Your task to perform on an android device: turn off notifications settings in the gmail app Image 0: 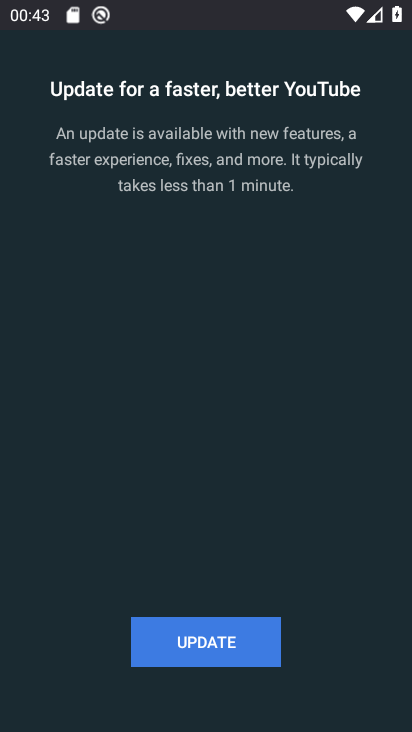
Step 0: press home button
Your task to perform on an android device: turn off notifications settings in the gmail app Image 1: 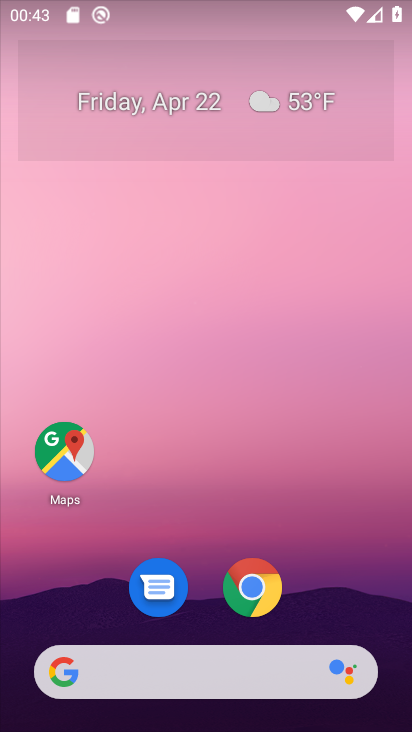
Step 1: drag from (352, 577) to (384, 207)
Your task to perform on an android device: turn off notifications settings in the gmail app Image 2: 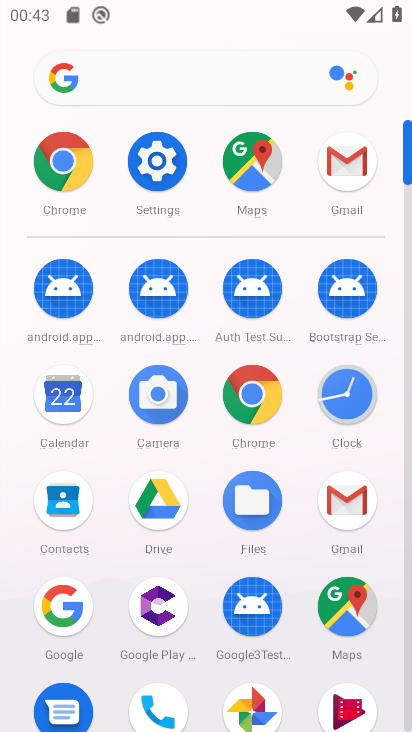
Step 2: click (351, 176)
Your task to perform on an android device: turn off notifications settings in the gmail app Image 3: 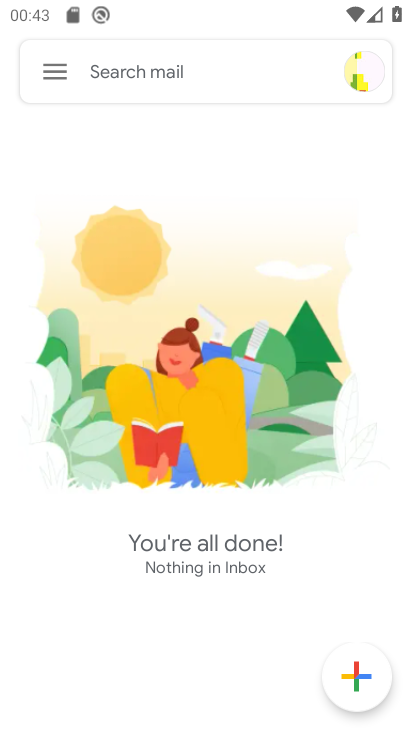
Step 3: click (60, 65)
Your task to perform on an android device: turn off notifications settings in the gmail app Image 4: 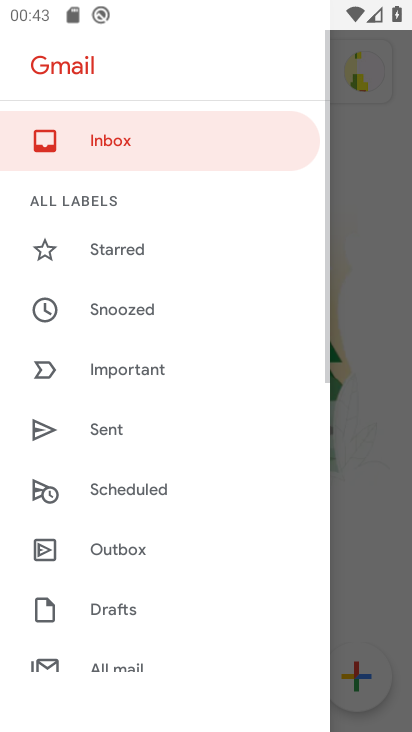
Step 4: drag from (182, 626) to (181, 189)
Your task to perform on an android device: turn off notifications settings in the gmail app Image 5: 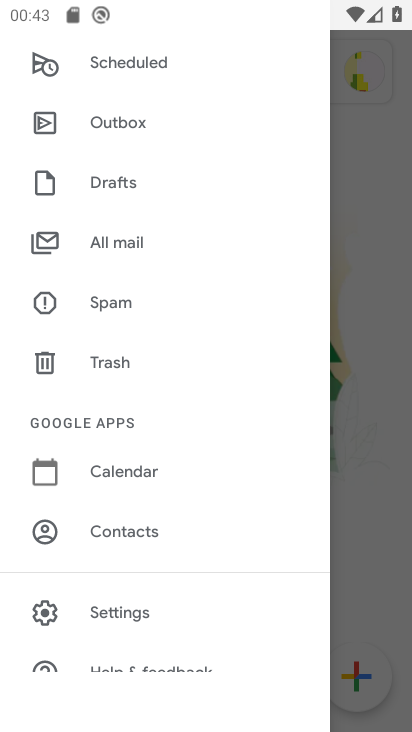
Step 5: click (100, 606)
Your task to perform on an android device: turn off notifications settings in the gmail app Image 6: 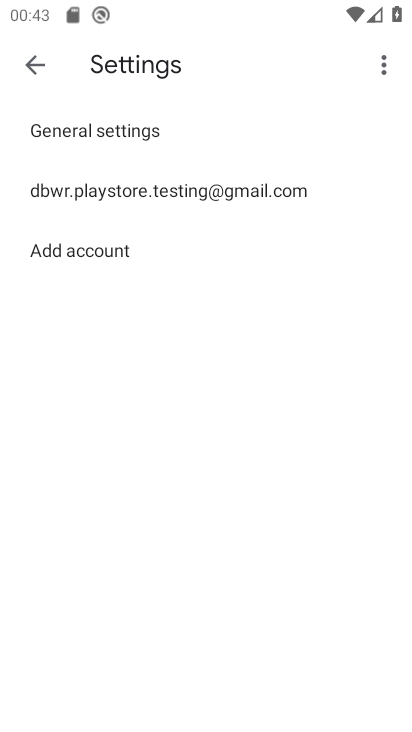
Step 6: click (201, 192)
Your task to perform on an android device: turn off notifications settings in the gmail app Image 7: 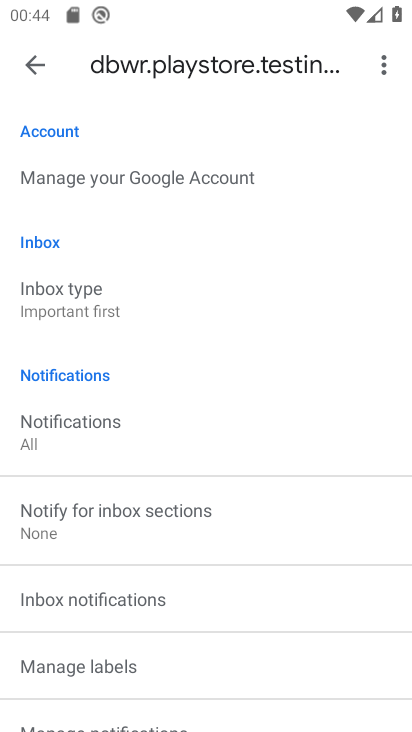
Step 7: drag from (203, 649) to (179, 407)
Your task to perform on an android device: turn off notifications settings in the gmail app Image 8: 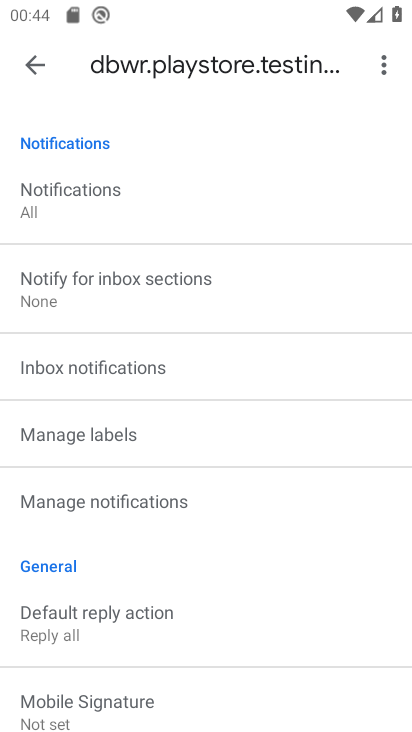
Step 8: click (158, 200)
Your task to perform on an android device: turn off notifications settings in the gmail app Image 9: 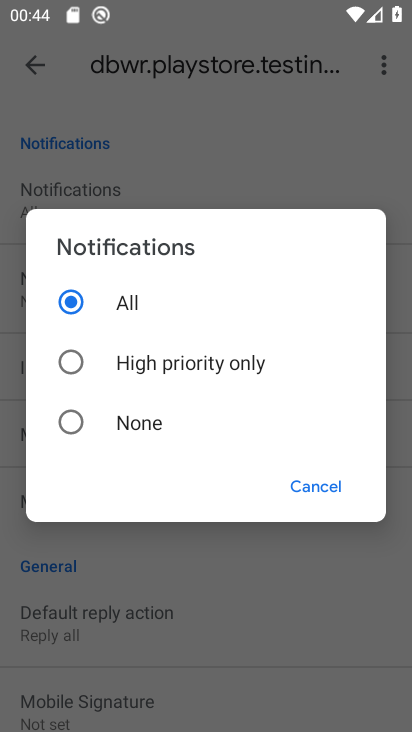
Step 9: click (116, 437)
Your task to perform on an android device: turn off notifications settings in the gmail app Image 10: 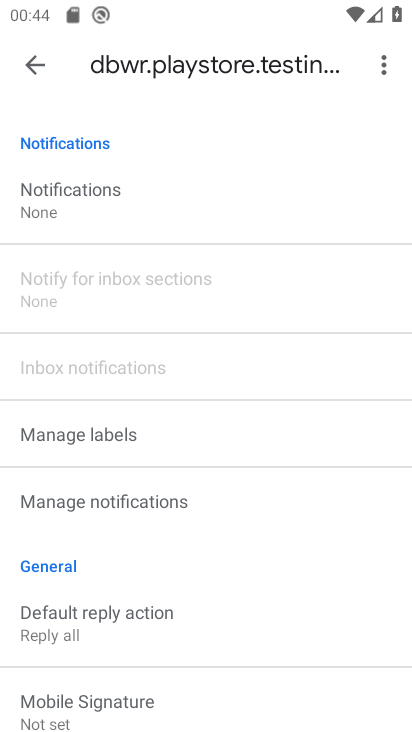
Step 10: task complete